Your task to perform on an android device: Check the news Image 0: 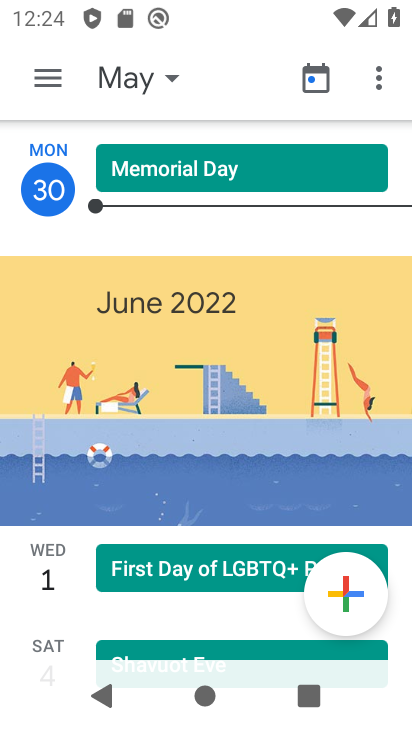
Step 0: press home button
Your task to perform on an android device: Check the news Image 1: 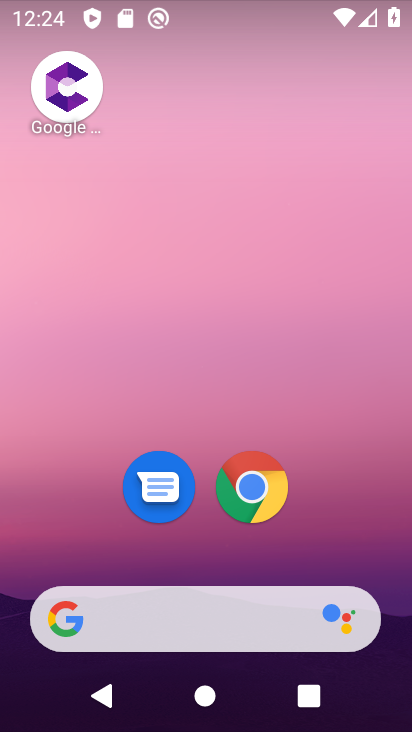
Step 1: task complete